Your task to perform on an android device: Open my contact list Image 0: 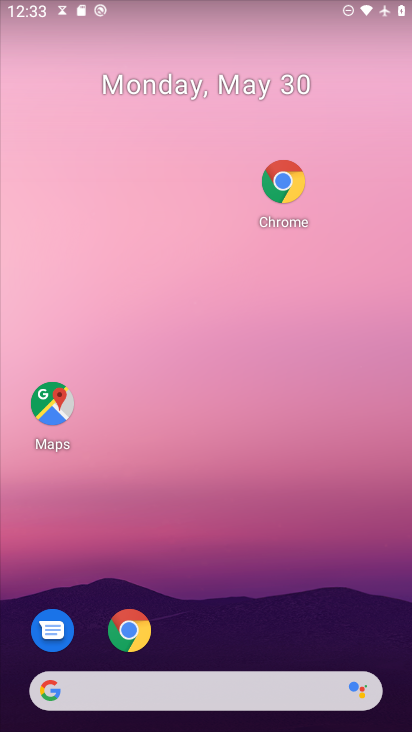
Step 0: drag from (260, 663) to (167, 211)
Your task to perform on an android device: Open my contact list Image 1: 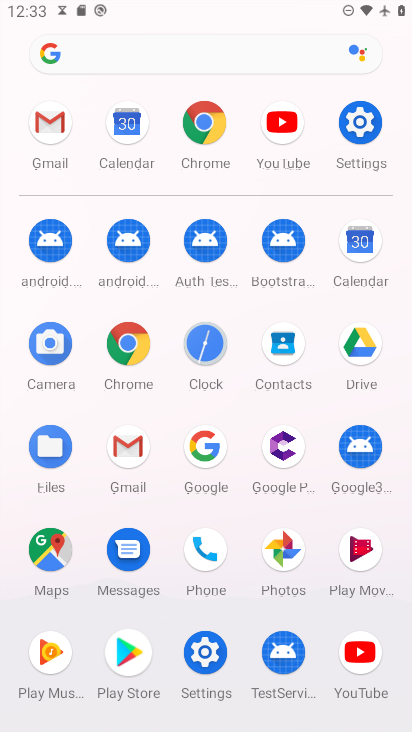
Step 1: click (271, 344)
Your task to perform on an android device: Open my contact list Image 2: 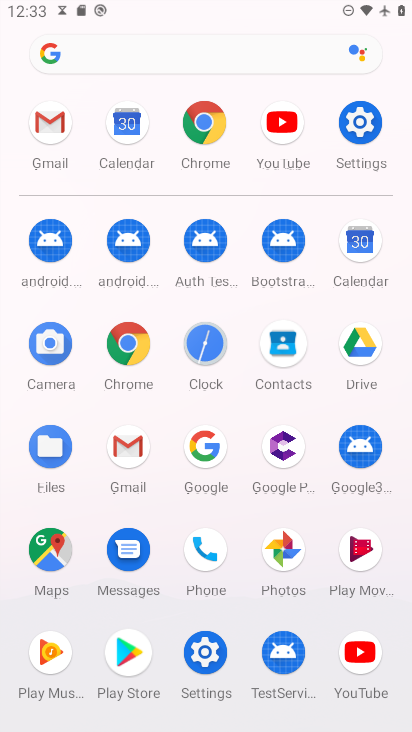
Step 2: click (271, 344)
Your task to perform on an android device: Open my contact list Image 3: 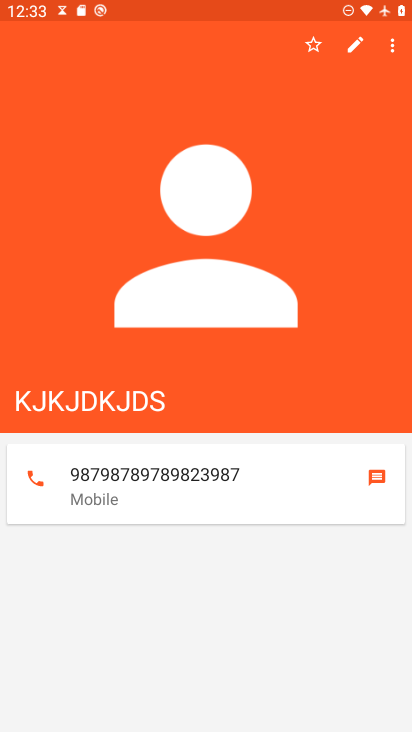
Step 3: task complete